Your task to perform on an android device: Clear the shopping cart on target. Search for razer thresher on target, select the first entry, and add it to the cart. Image 0: 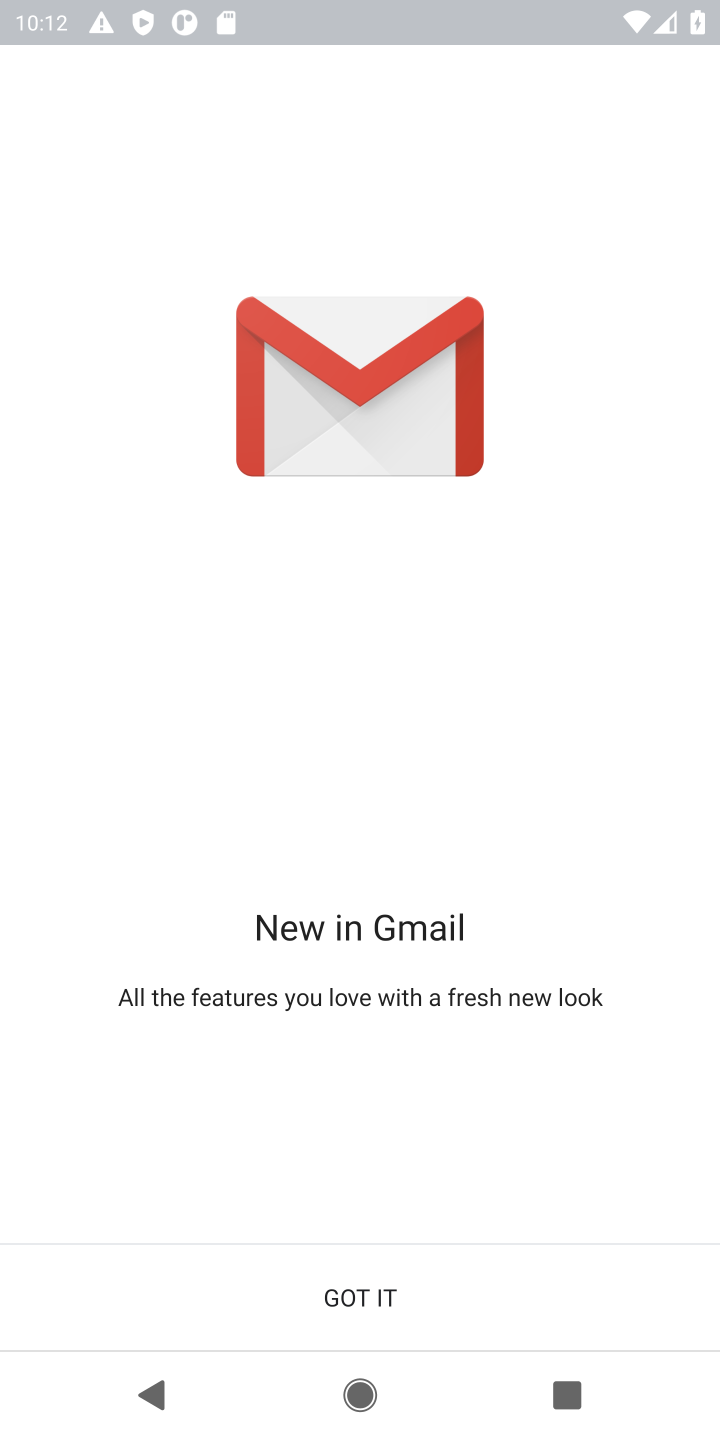
Step 0: press home button
Your task to perform on an android device: Clear the shopping cart on target. Search for razer thresher on target, select the first entry, and add it to the cart. Image 1: 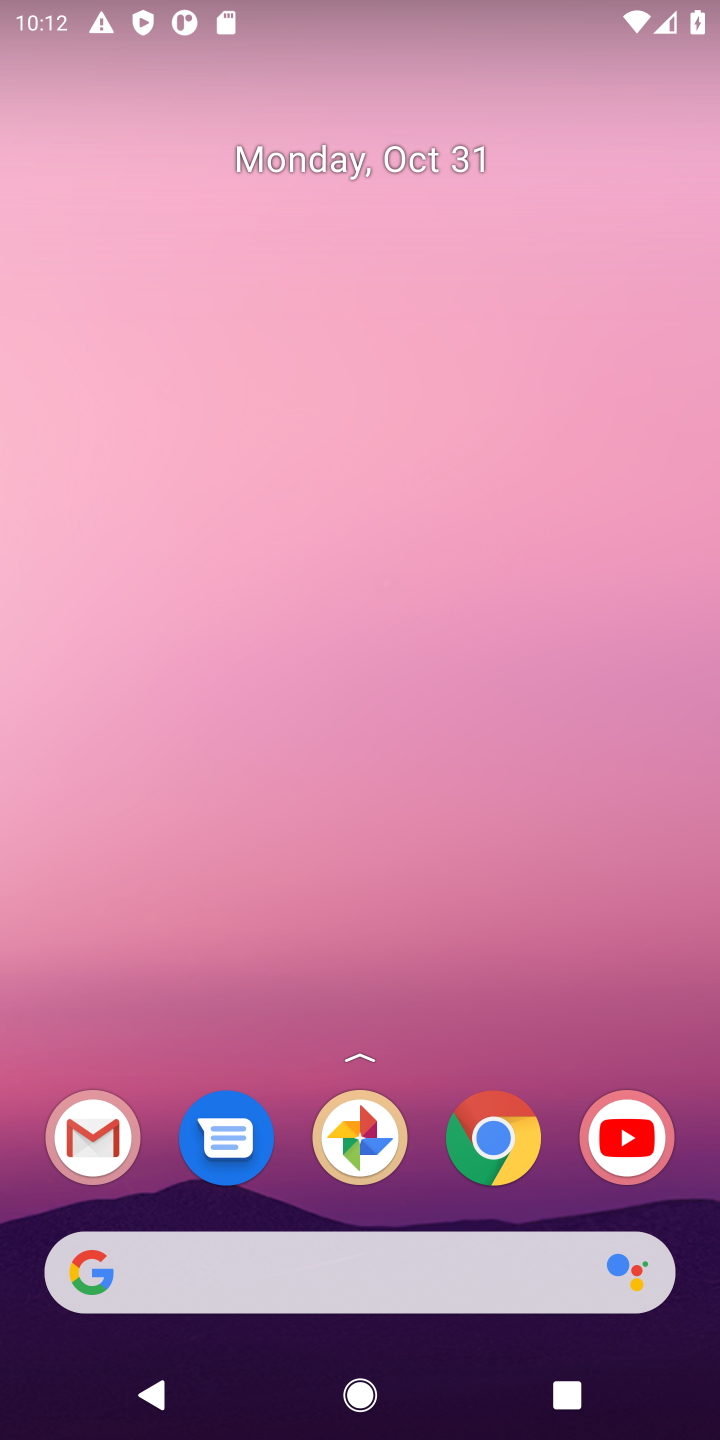
Step 1: click (477, 1148)
Your task to perform on an android device: Clear the shopping cart on target. Search for razer thresher on target, select the first entry, and add it to the cart. Image 2: 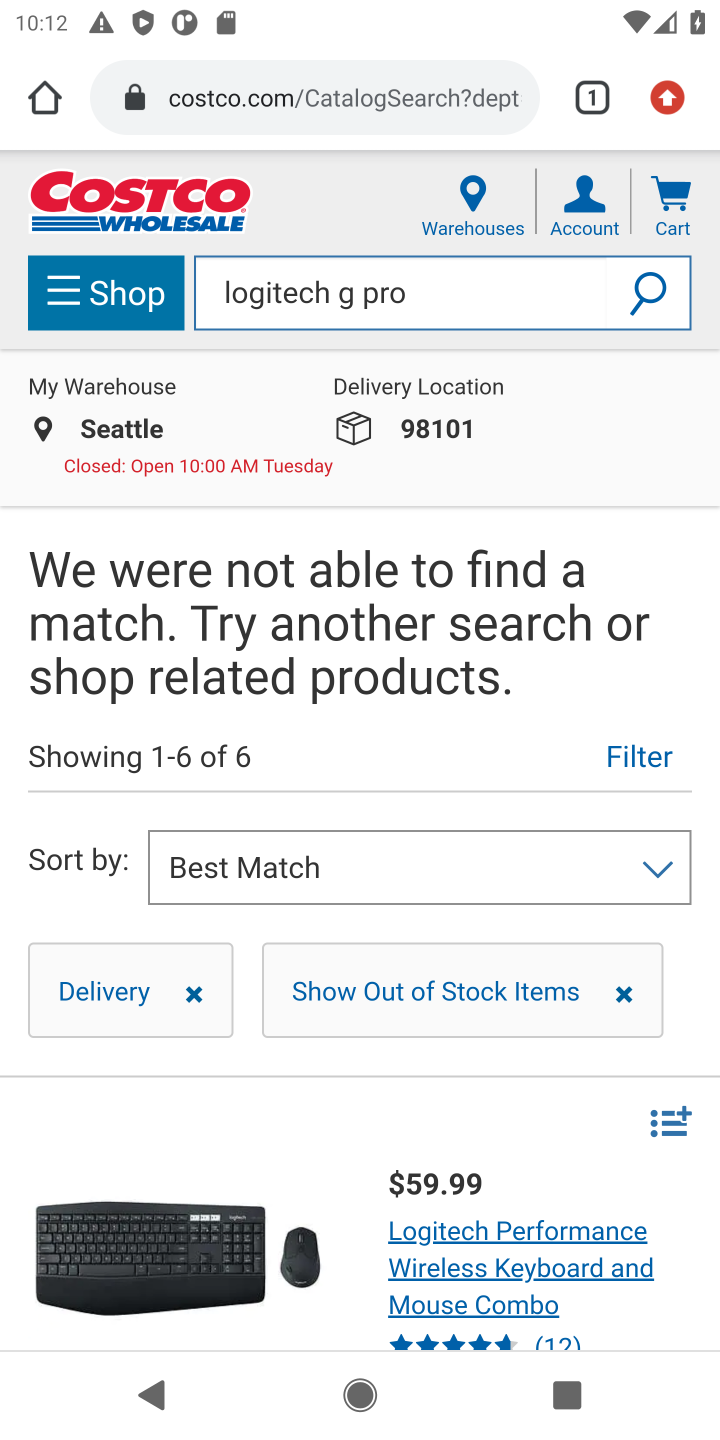
Step 2: click (278, 89)
Your task to perform on an android device: Clear the shopping cart on target. Search for razer thresher on target, select the first entry, and add it to the cart. Image 3: 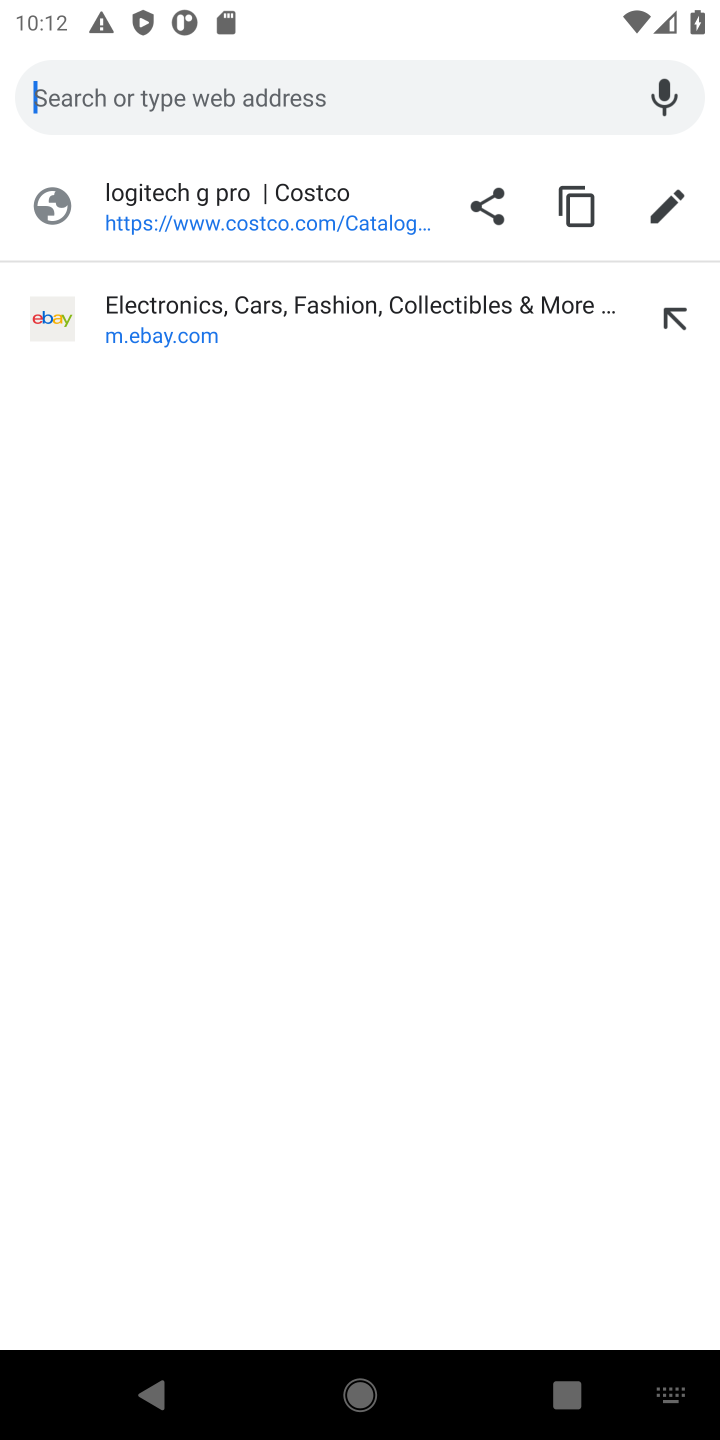
Step 3: type "target"
Your task to perform on an android device: Clear the shopping cart on target. Search for razer thresher on target, select the first entry, and add it to the cart. Image 4: 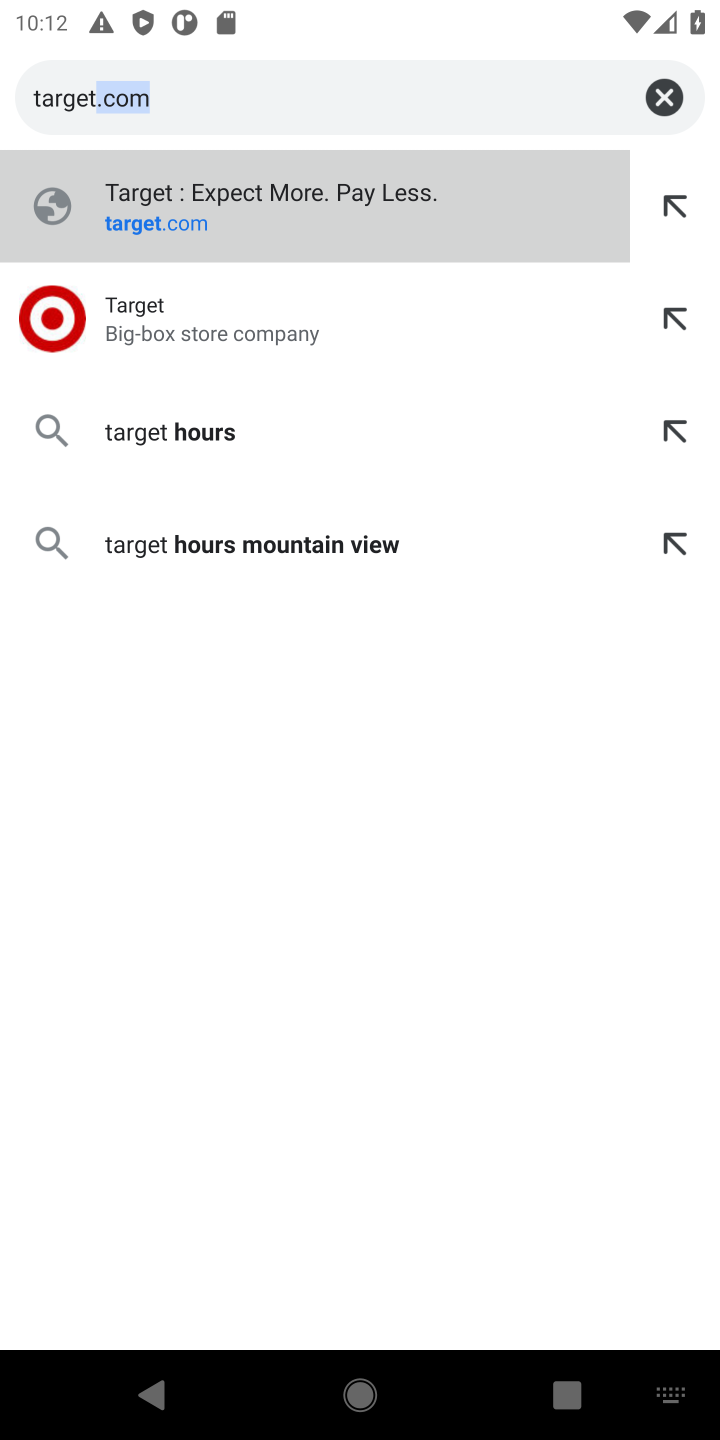
Step 4: click (117, 346)
Your task to perform on an android device: Clear the shopping cart on target. Search for razer thresher on target, select the first entry, and add it to the cart. Image 5: 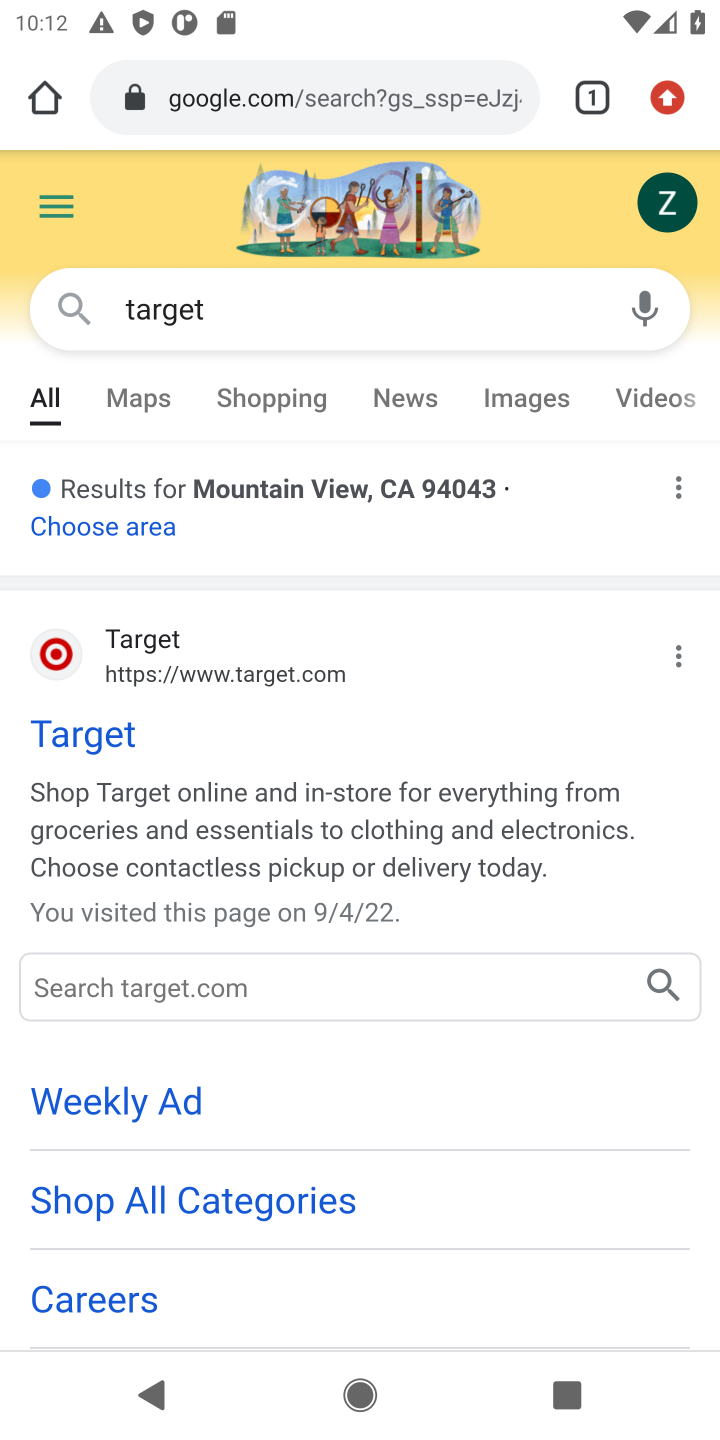
Step 5: click (45, 674)
Your task to perform on an android device: Clear the shopping cart on target. Search for razer thresher on target, select the first entry, and add it to the cart. Image 6: 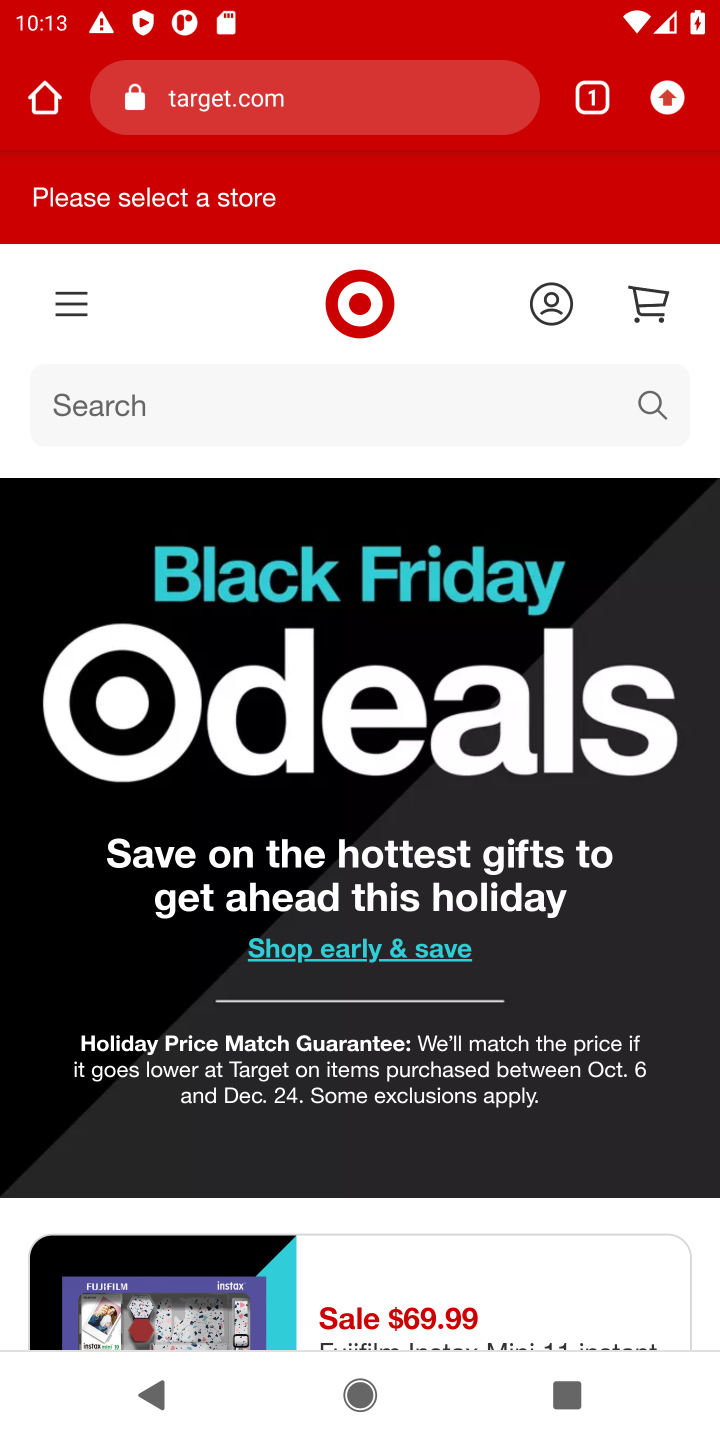
Step 6: click (652, 302)
Your task to perform on an android device: Clear the shopping cart on target. Search for razer thresher on target, select the first entry, and add it to the cart. Image 7: 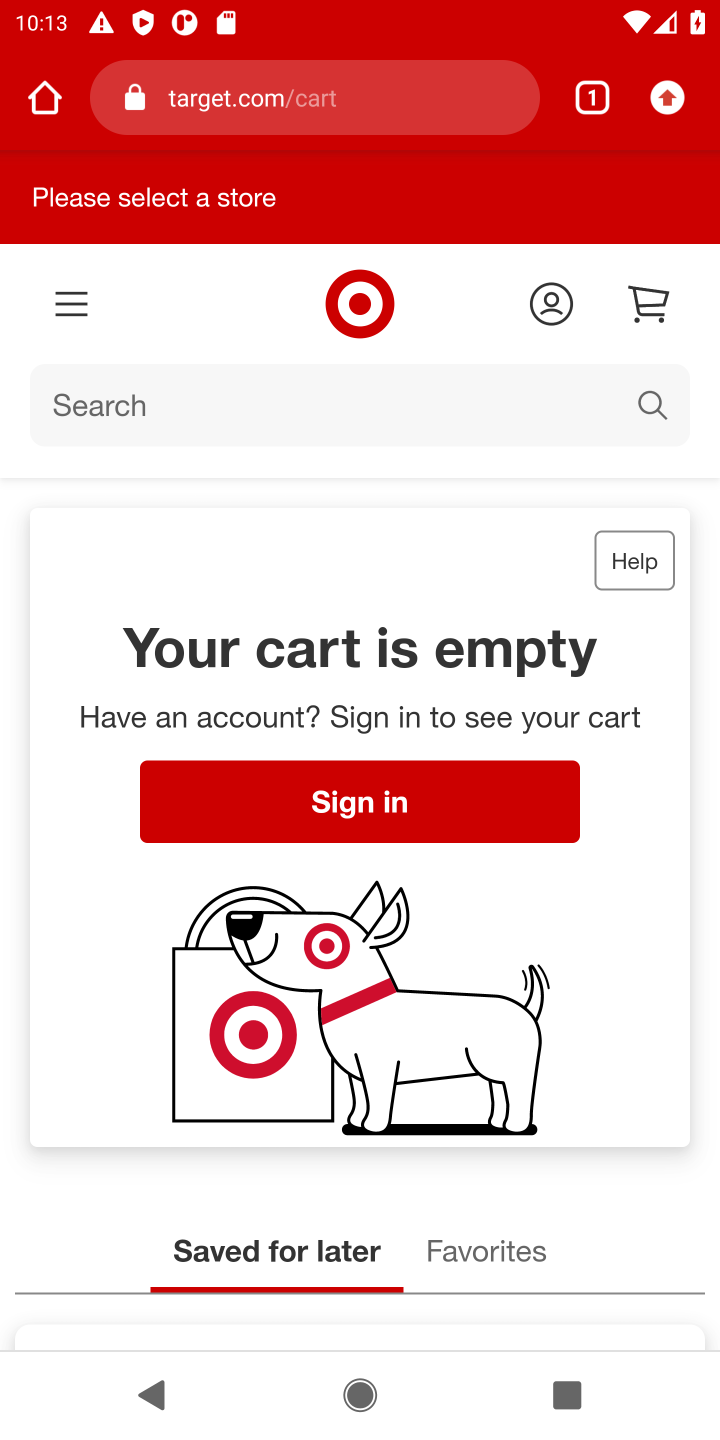
Step 7: click (239, 406)
Your task to perform on an android device: Clear the shopping cart on target. Search for razer thresher on target, select the first entry, and add it to the cart. Image 8: 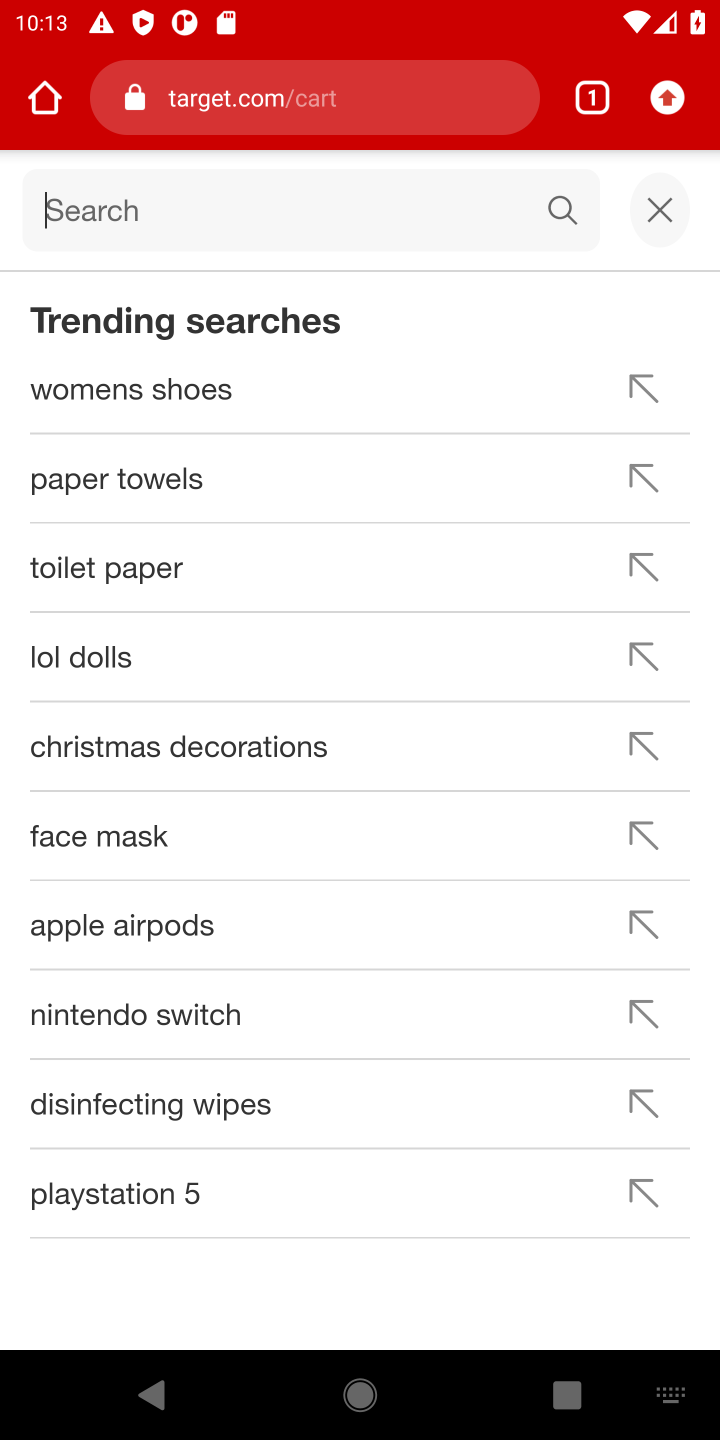
Step 8: type "razer thresher "
Your task to perform on an android device: Clear the shopping cart on target. Search for razer thresher on target, select the first entry, and add it to the cart. Image 9: 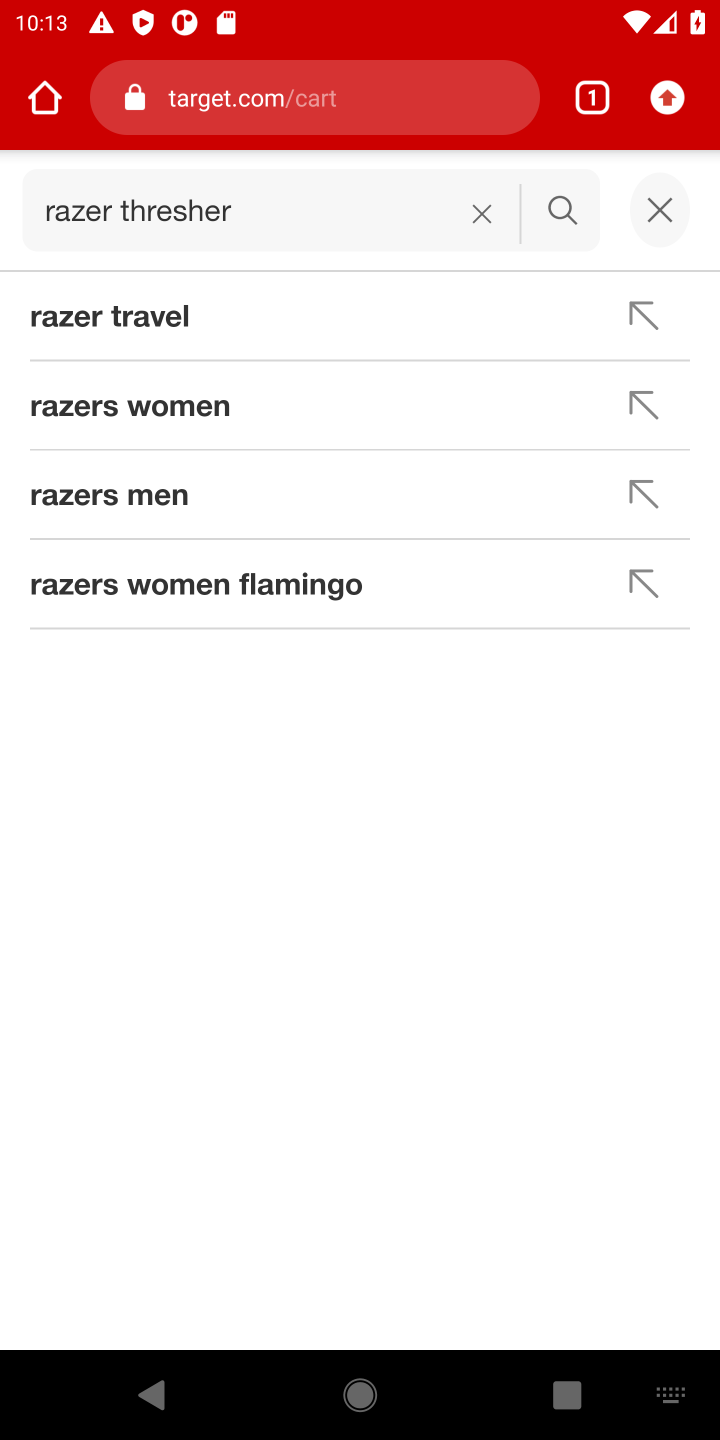
Step 9: click (574, 216)
Your task to perform on an android device: Clear the shopping cart on target. Search for razer thresher on target, select the first entry, and add it to the cart. Image 10: 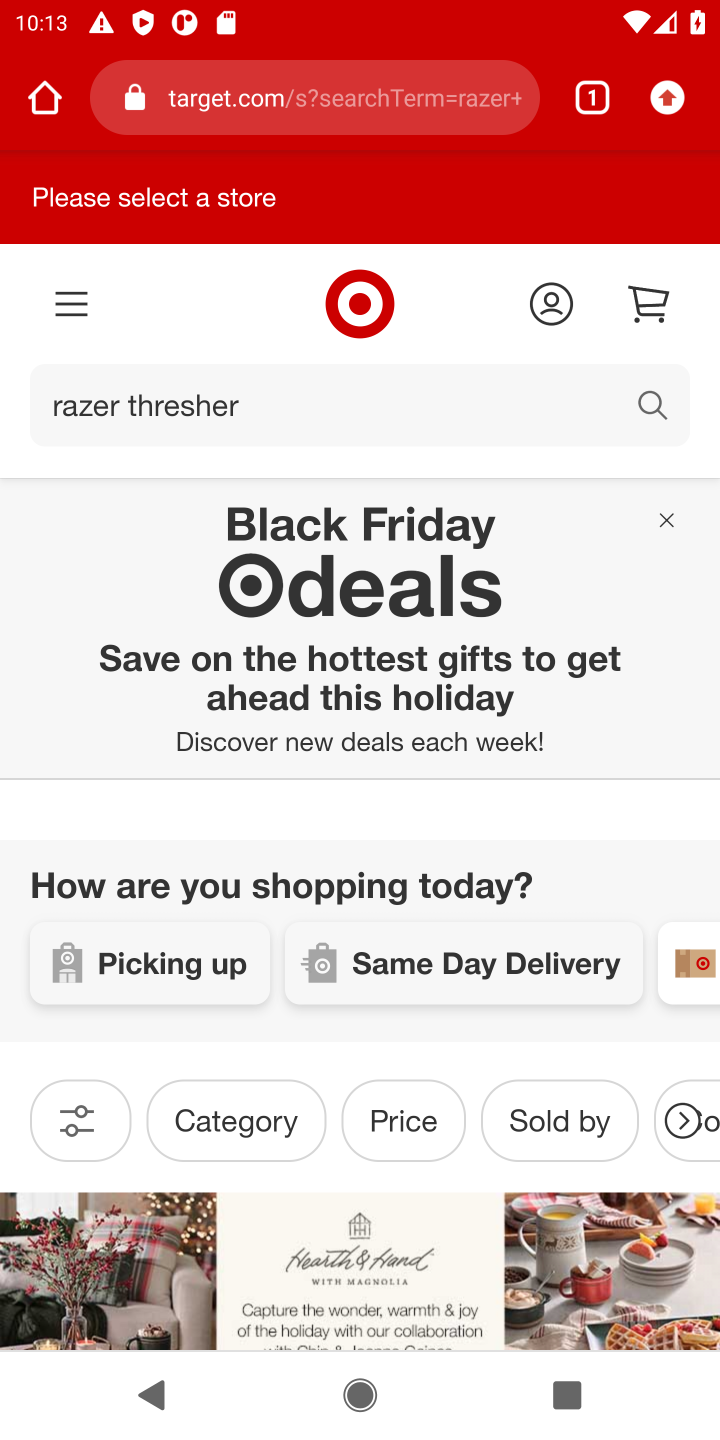
Step 10: task complete